Your task to perform on an android device: Open Google Image 0: 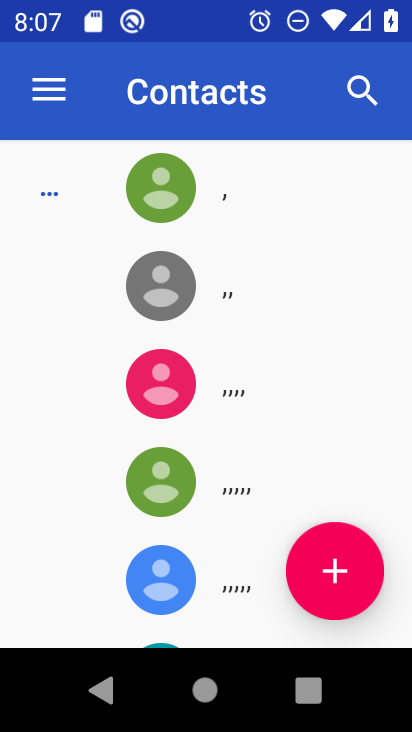
Step 0: press home button
Your task to perform on an android device: Open Google Image 1: 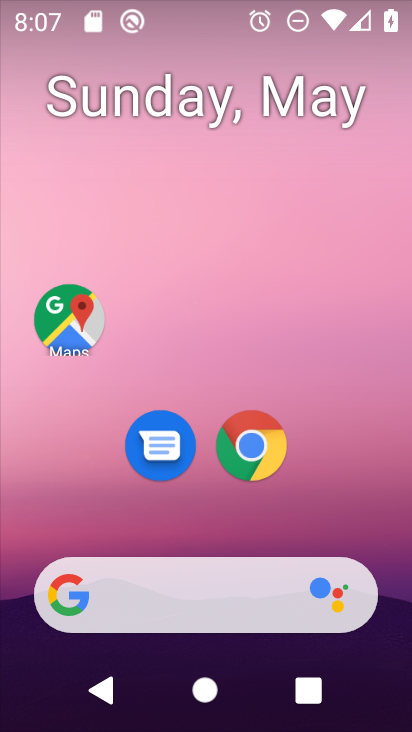
Step 1: drag from (302, 598) to (310, 164)
Your task to perform on an android device: Open Google Image 2: 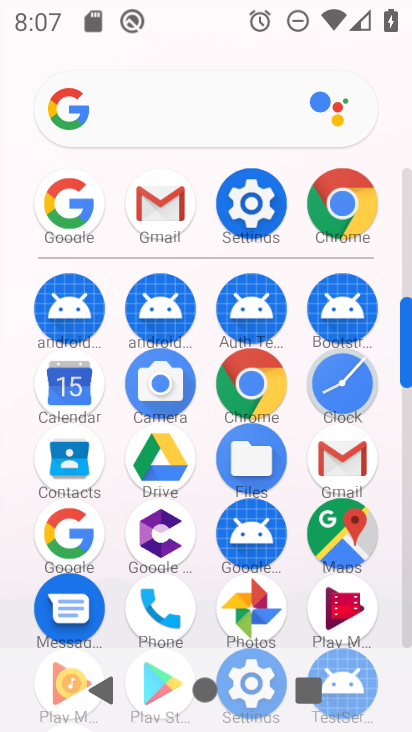
Step 2: click (68, 226)
Your task to perform on an android device: Open Google Image 3: 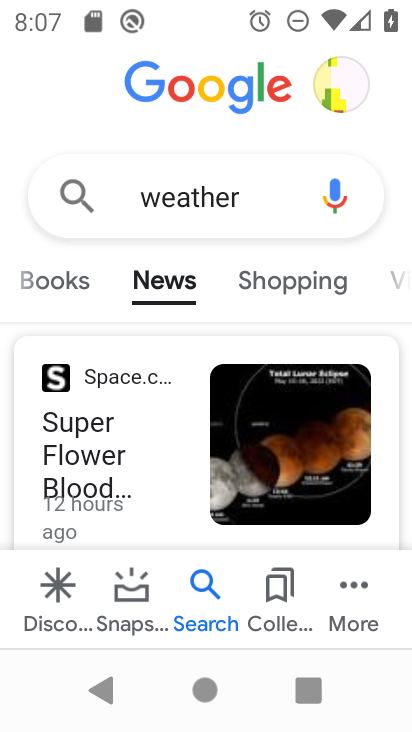
Step 3: click (274, 201)
Your task to perform on an android device: Open Google Image 4: 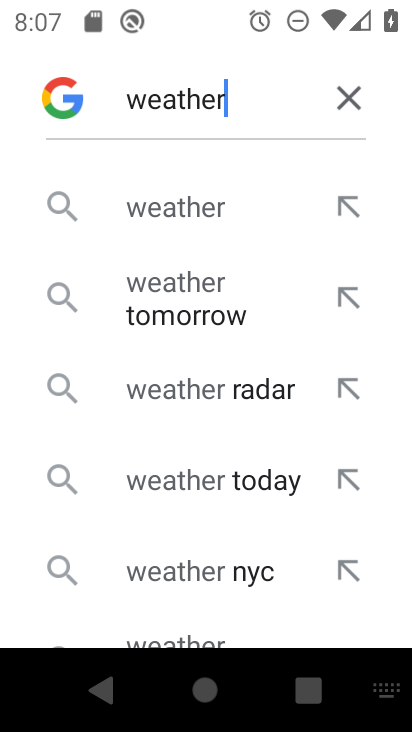
Step 4: task complete